Your task to perform on an android device: change notification settings in the gmail app Image 0: 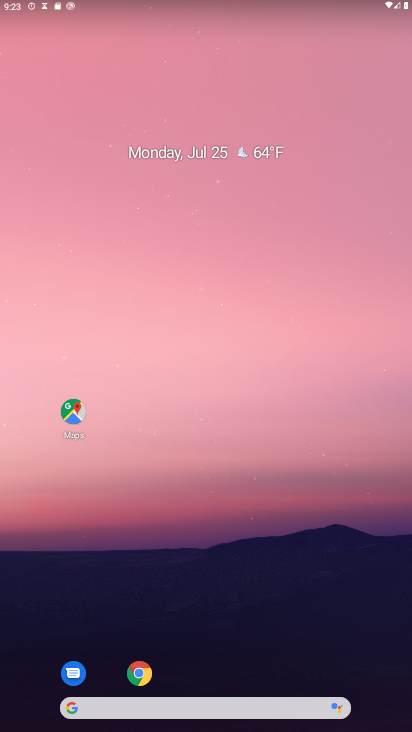
Step 0: press home button
Your task to perform on an android device: change notification settings in the gmail app Image 1: 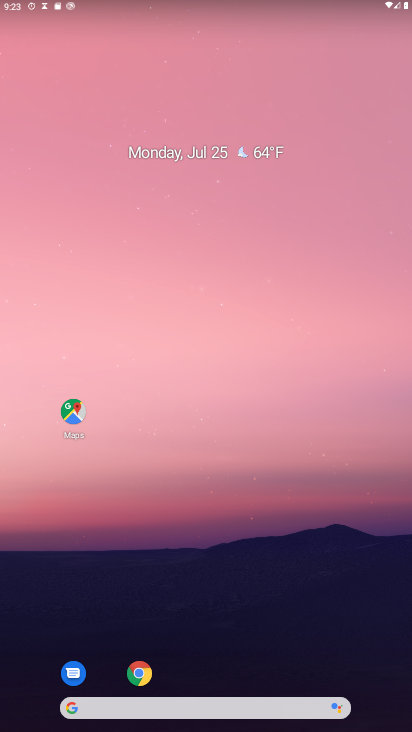
Step 1: click (256, 2)
Your task to perform on an android device: change notification settings in the gmail app Image 2: 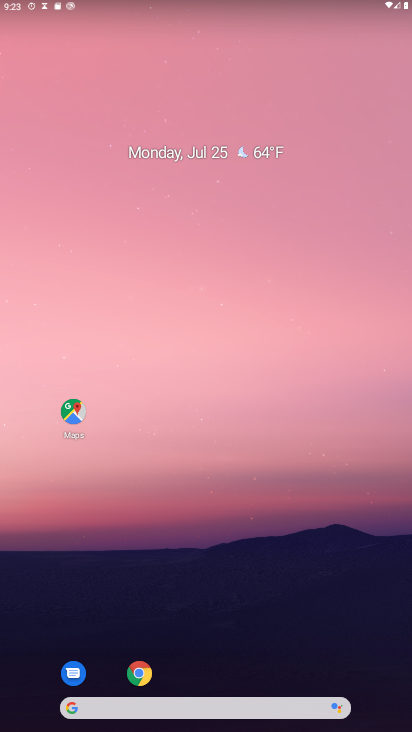
Step 2: drag from (215, 681) to (192, 77)
Your task to perform on an android device: change notification settings in the gmail app Image 3: 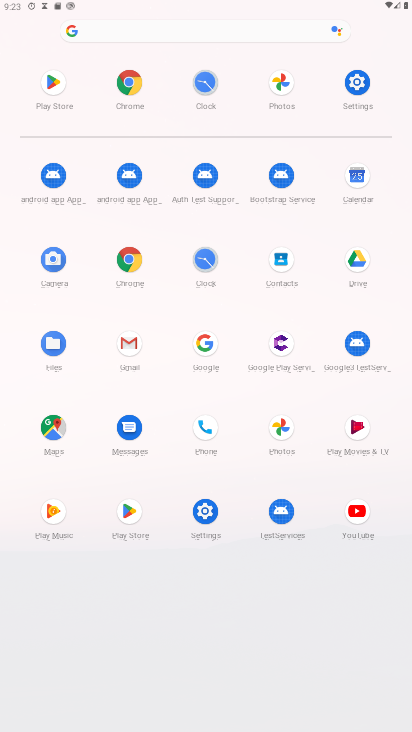
Step 3: click (128, 338)
Your task to perform on an android device: change notification settings in the gmail app Image 4: 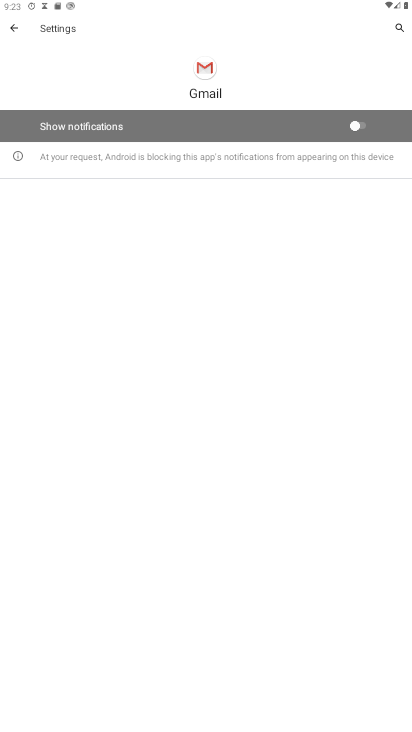
Step 4: click (357, 125)
Your task to perform on an android device: change notification settings in the gmail app Image 5: 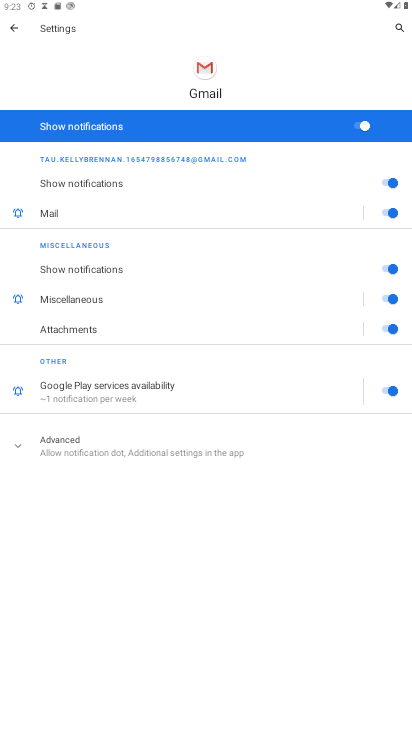
Step 5: task complete